Your task to perform on an android device: Is it going to rain today? Image 0: 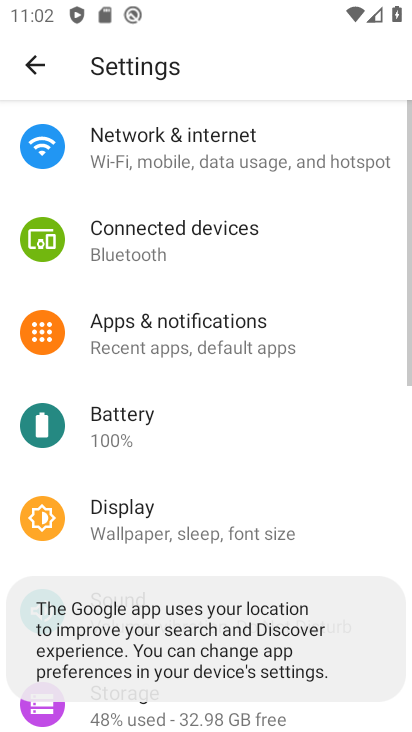
Step 0: press home button
Your task to perform on an android device: Is it going to rain today? Image 1: 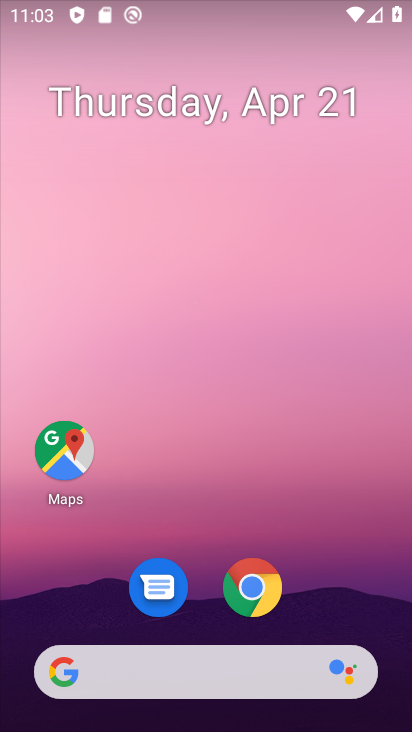
Step 1: drag from (200, 719) to (203, 115)
Your task to perform on an android device: Is it going to rain today? Image 2: 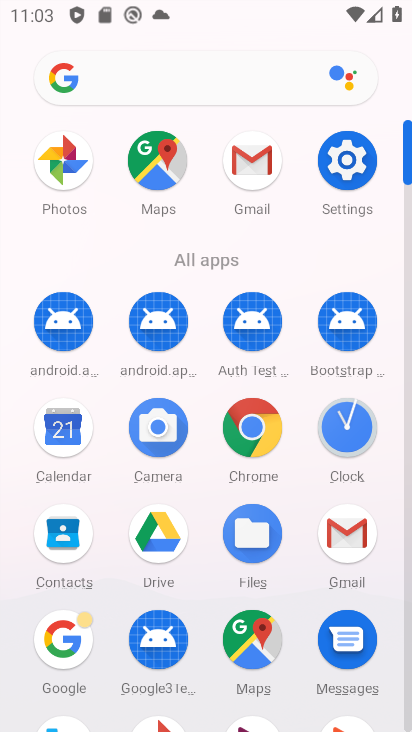
Step 2: click (67, 637)
Your task to perform on an android device: Is it going to rain today? Image 3: 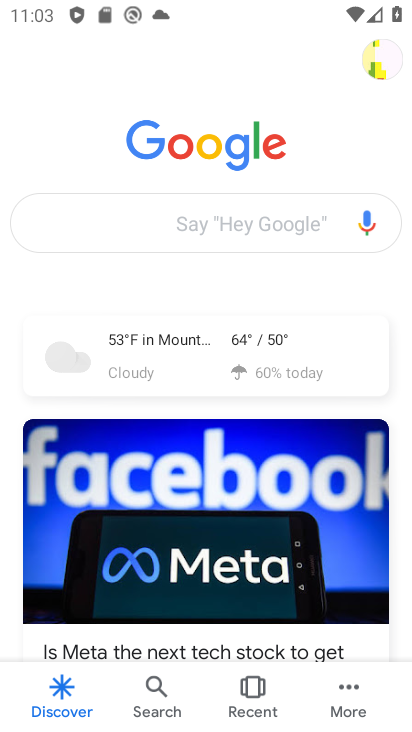
Step 3: click (146, 365)
Your task to perform on an android device: Is it going to rain today? Image 4: 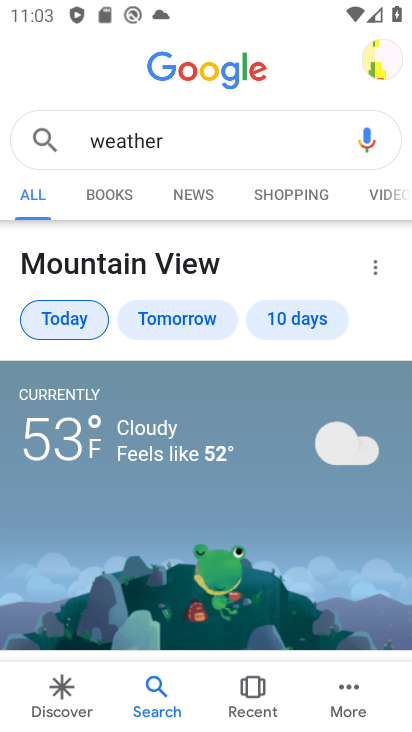
Step 4: task complete